Your task to perform on an android device: What's on my calendar today? Image 0: 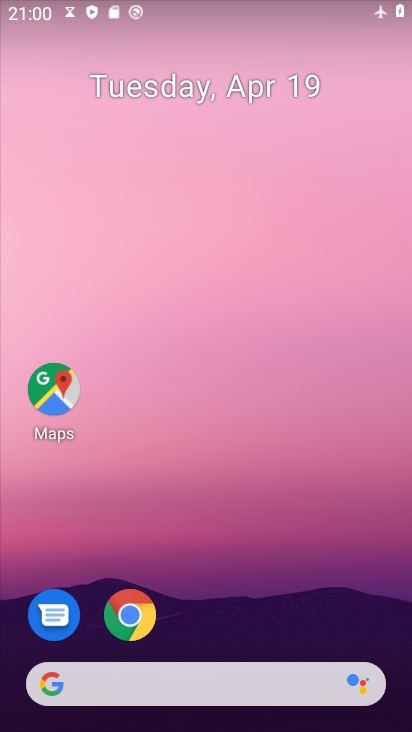
Step 0: drag from (387, 553) to (325, 54)
Your task to perform on an android device: What's on my calendar today? Image 1: 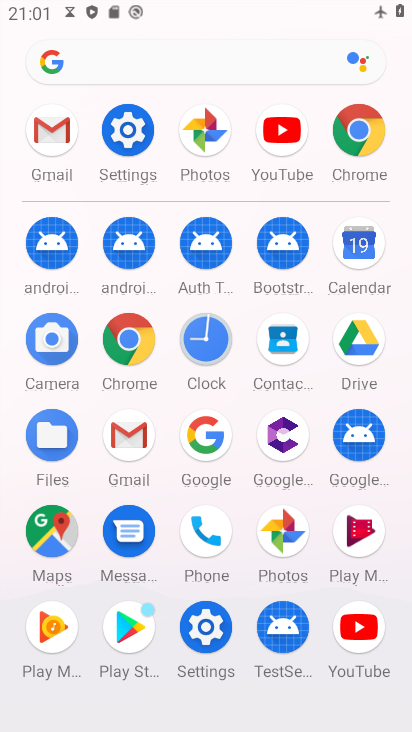
Step 1: drag from (18, 504) to (16, 281)
Your task to perform on an android device: What's on my calendar today? Image 2: 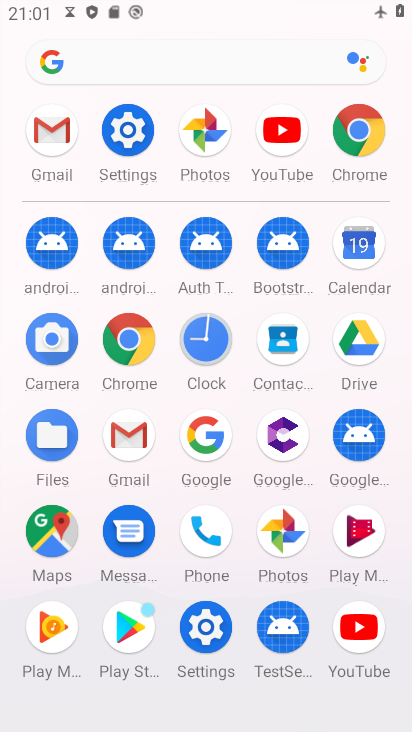
Step 2: click (354, 242)
Your task to perform on an android device: What's on my calendar today? Image 3: 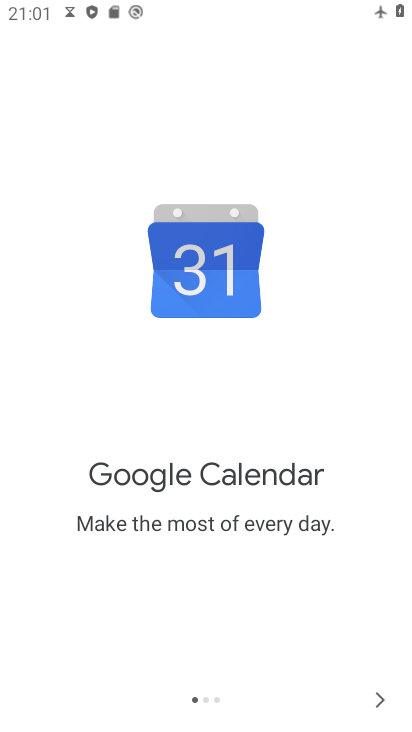
Step 3: click (371, 701)
Your task to perform on an android device: What's on my calendar today? Image 4: 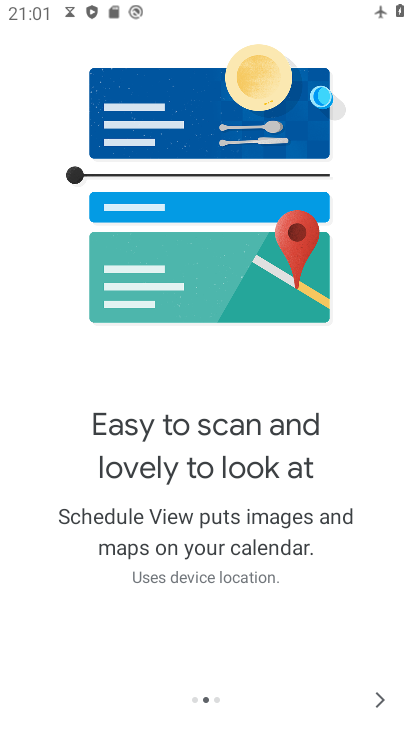
Step 4: click (371, 701)
Your task to perform on an android device: What's on my calendar today? Image 5: 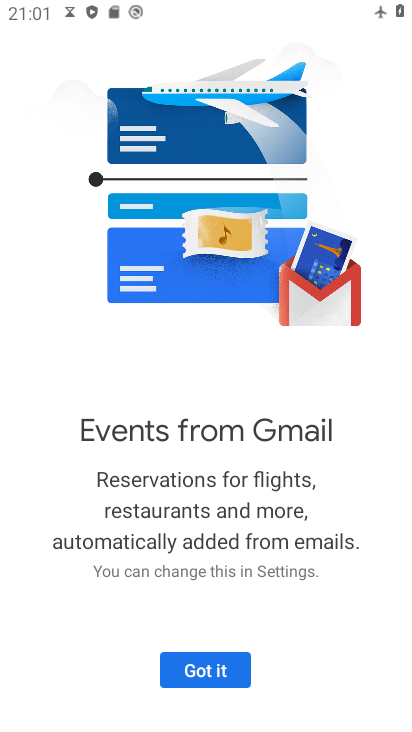
Step 5: click (217, 674)
Your task to perform on an android device: What's on my calendar today? Image 6: 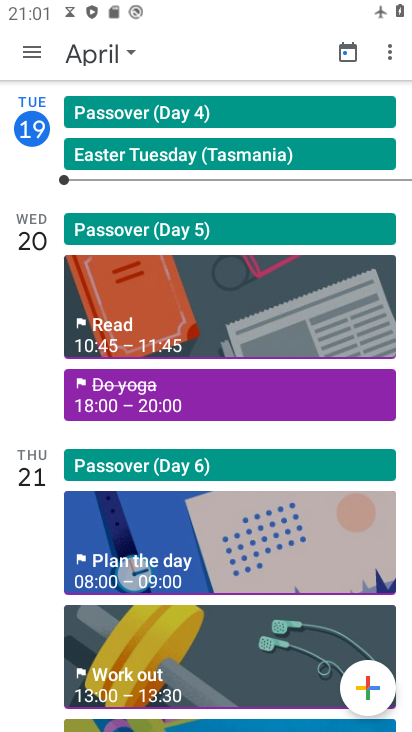
Step 6: click (41, 52)
Your task to perform on an android device: What's on my calendar today? Image 7: 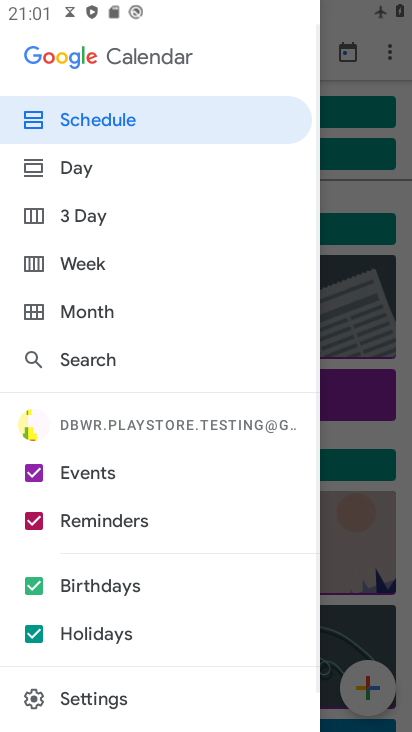
Step 7: click (57, 177)
Your task to perform on an android device: What's on my calendar today? Image 8: 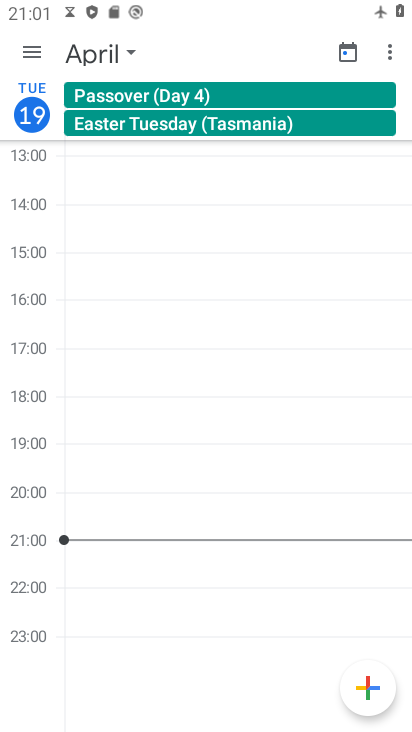
Step 8: task complete